Your task to perform on an android device: turn off data saver in the chrome app Image 0: 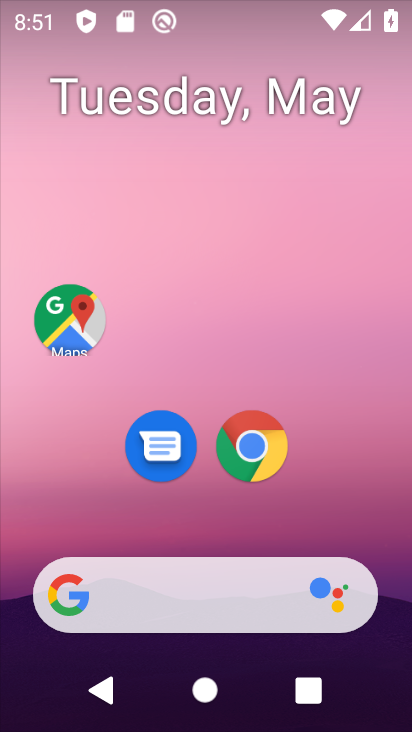
Step 0: drag from (398, 545) to (396, 220)
Your task to perform on an android device: turn off data saver in the chrome app Image 1: 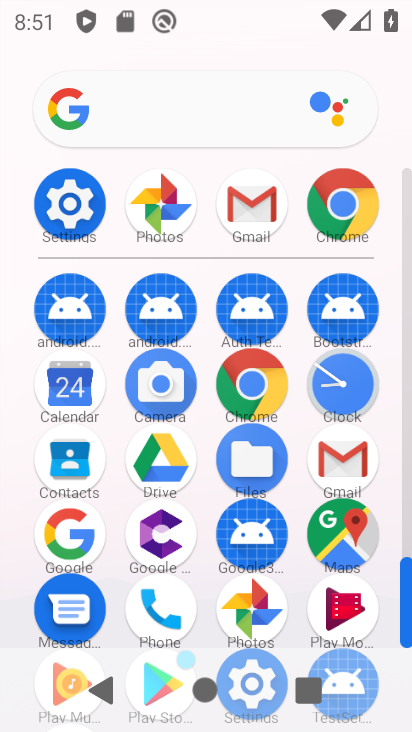
Step 1: click (273, 387)
Your task to perform on an android device: turn off data saver in the chrome app Image 2: 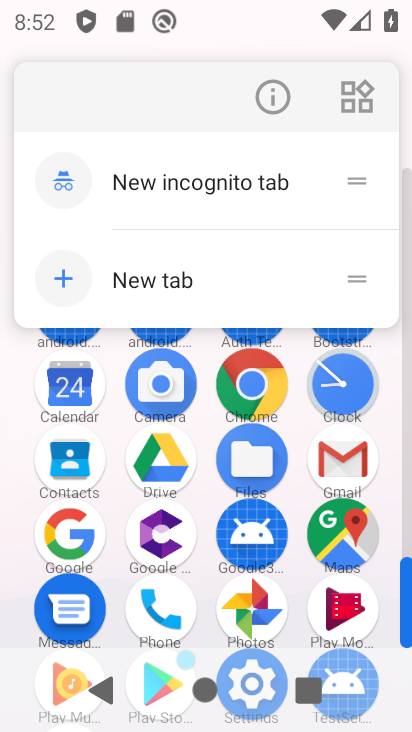
Step 2: click (269, 394)
Your task to perform on an android device: turn off data saver in the chrome app Image 3: 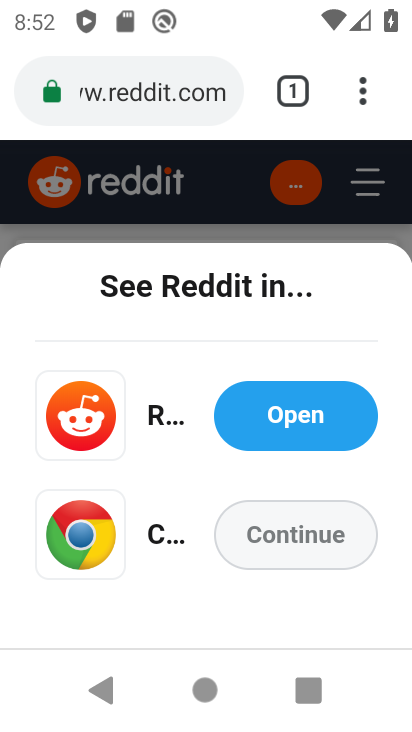
Step 3: click (363, 100)
Your task to perform on an android device: turn off data saver in the chrome app Image 4: 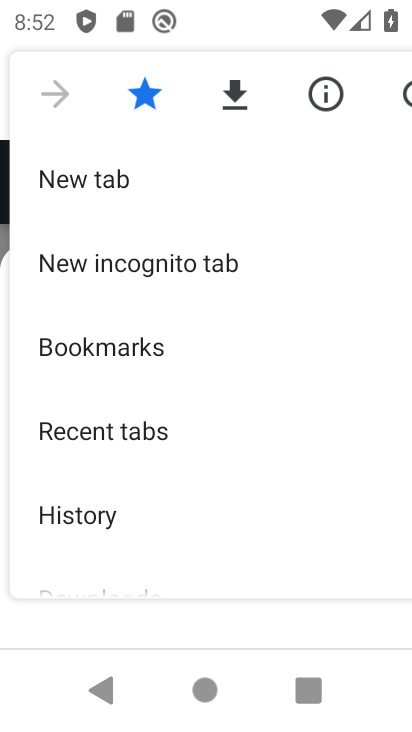
Step 4: drag from (347, 519) to (348, 406)
Your task to perform on an android device: turn off data saver in the chrome app Image 5: 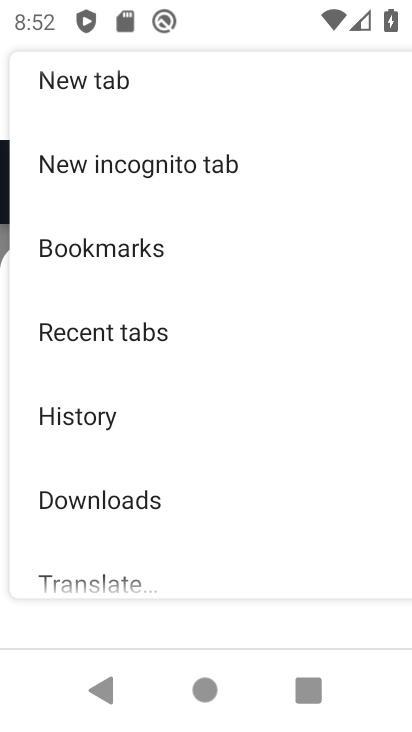
Step 5: drag from (376, 542) to (366, 414)
Your task to perform on an android device: turn off data saver in the chrome app Image 6: 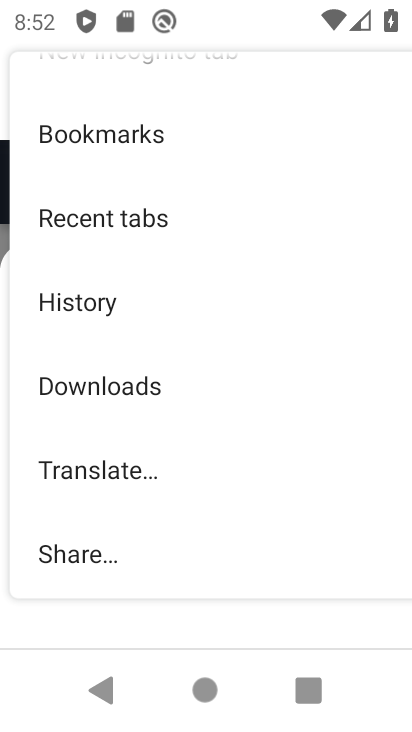
Step 6: drag from (332, 577) to (341, 436)
Your task to perform on an android device: turn off data saver in the chrome app Image 7: 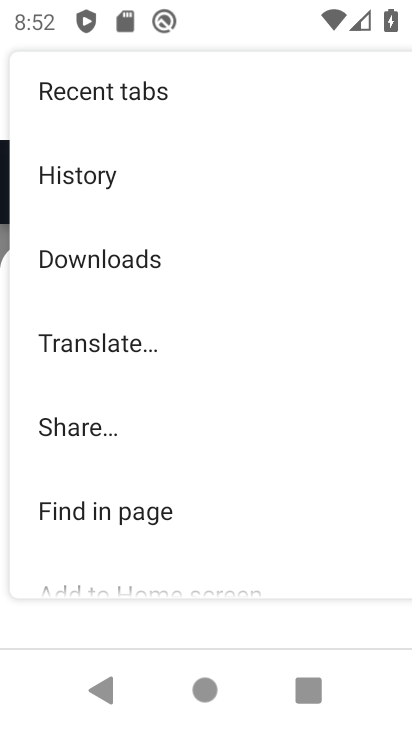
Step 7: drag from (338, 523) to (337, 429)
Your task to perform on an android device: turn off data saver in the chrome app Image 8: 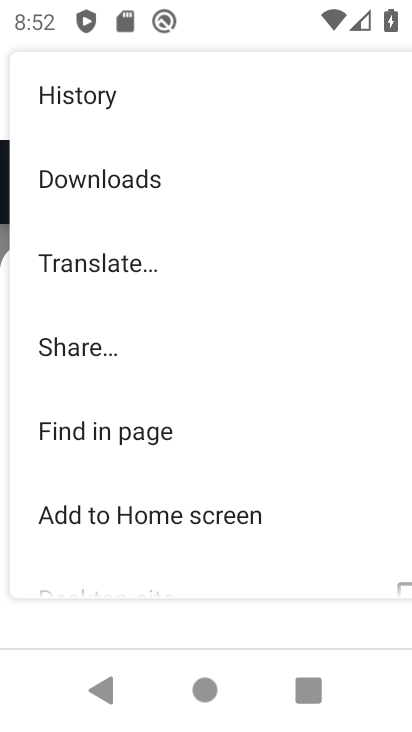
Step 8: drag from (320, 505) to (325, 371)
Your task to perform on an android device: turn off data saver in the chrome app Image 9: 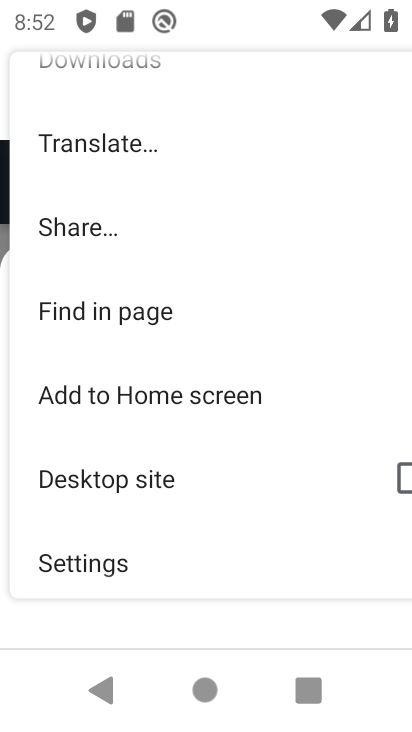
Step 9: drag from (319, 539) to (316, 441)
Your task to perform on an android device: turn off data saver in the chrome app Image 10: 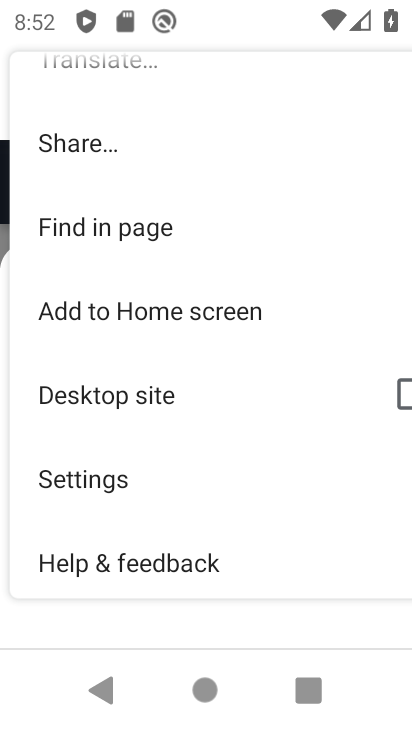
Step 10: drag from (320, 499) to (316, 419)
Your task to perform on an android device: turn off data saver in the chrome app Image 11: 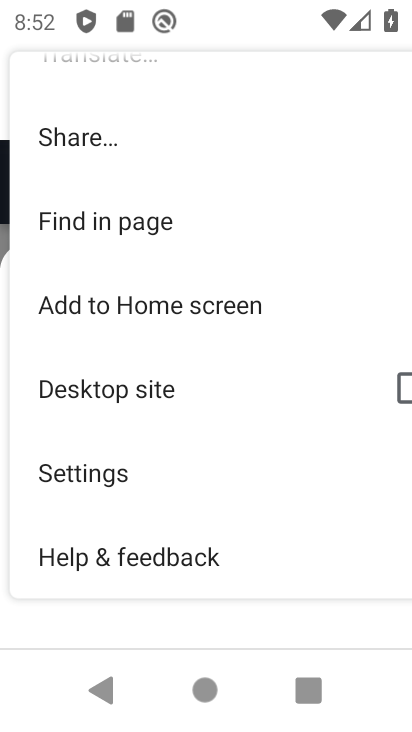
Step 11: click (126, 487)
Your task to perform on an android device: turn off data saver in the chrome app Image 12: 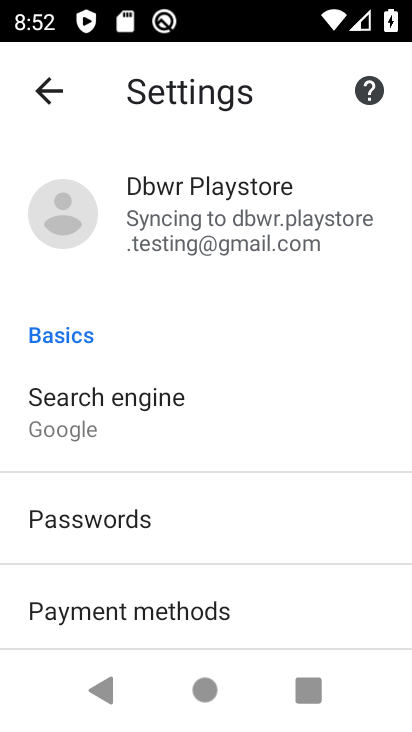
Step 12: drag from (294, 555) to (298, 452)
Your task to perform on an android device: turn off data saver in the chrome app Image 13: 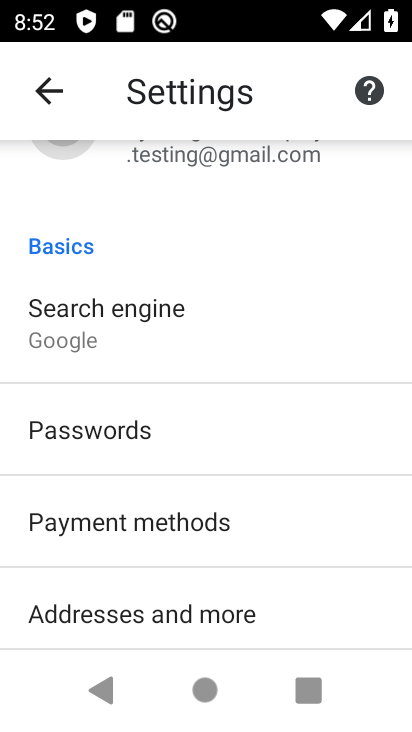
Step 13: drag from (334, 580) to (341, 474)
Your task to perform on an android device: turn off data saver in the chrome app Image 14: 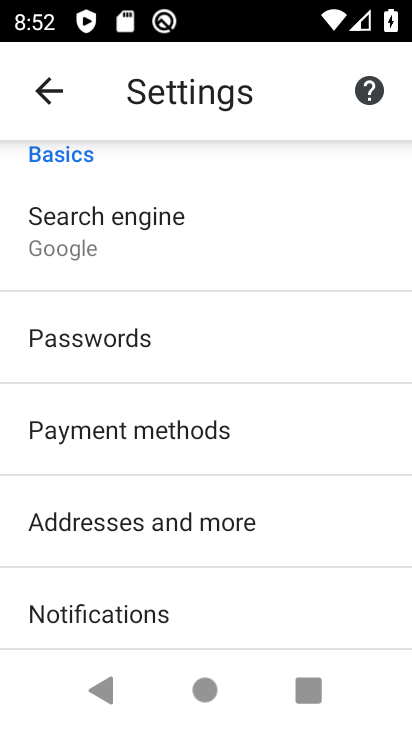
Step 14: drag from (333, 541) to (329, 410)
Your task to perform on an android device: turn off data saver in the chrome app Image 15: 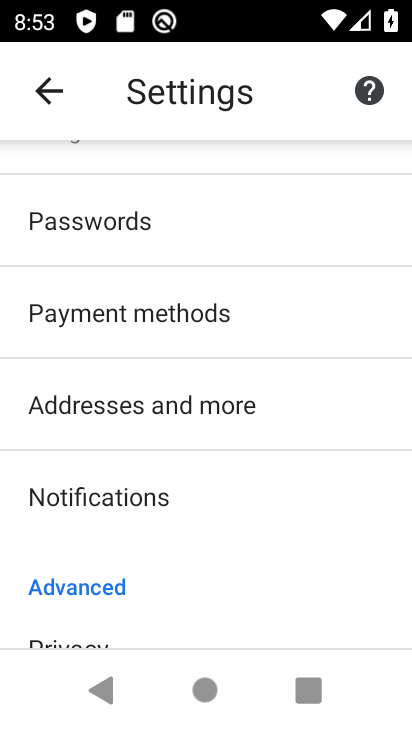
Step 15: drag from (337, 525) to (328, 441)
Your task to perform on an android device: turn off data saver in the chrome app Image 16: 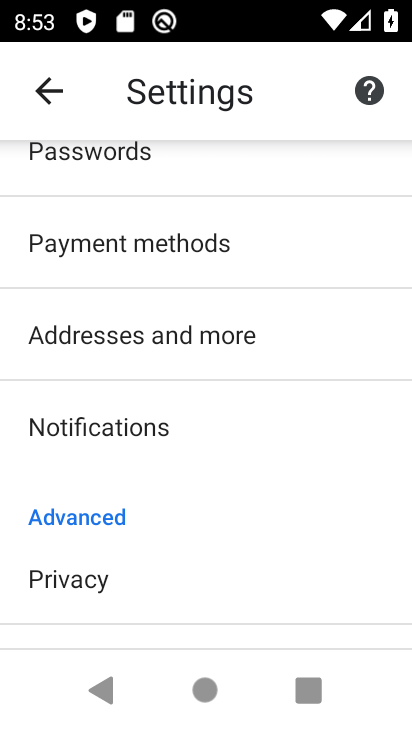
Step 16: drag from (347, 590) to (341, 498)
Your task to perform on an android device: turn off data saver in the chrome app Image 17: 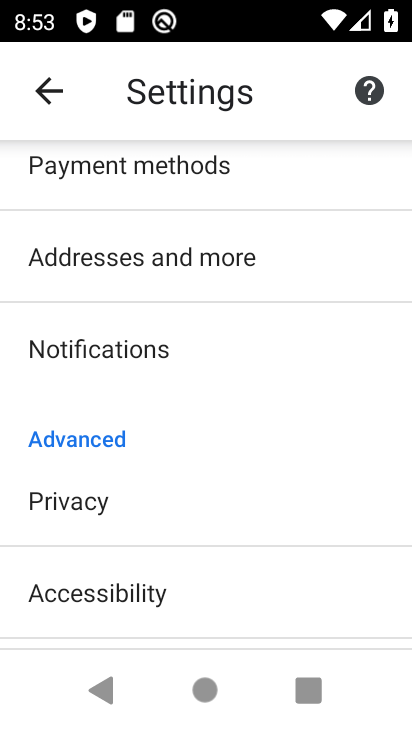
Step 17: drag from (322, 577) to (313, 453)
Your task to perform on an android device: turn off data saver in the chrome app Image 18: 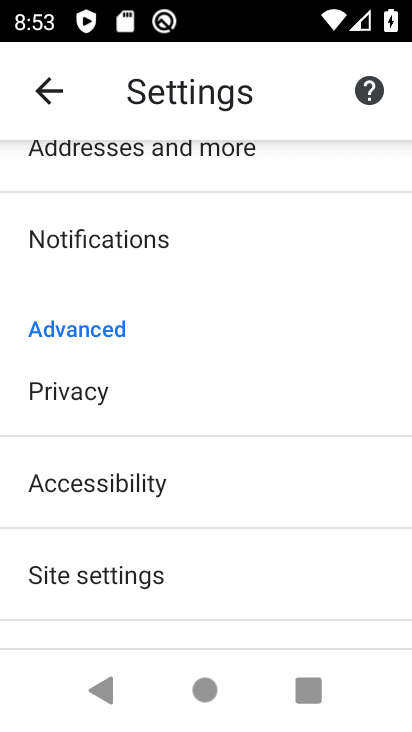
Step 18: drag from (302, 558) to (289, 458)
Your task to perform on an android device: turn off data saver in the chrome app Image 19: 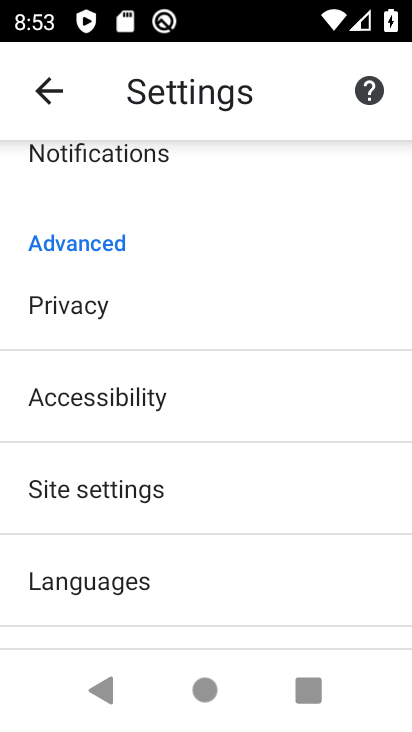
Step 19: drag from (263, 571) to (262, 433)
Your task to perform on an android device: turn off data saver in the chrome app Image 20: 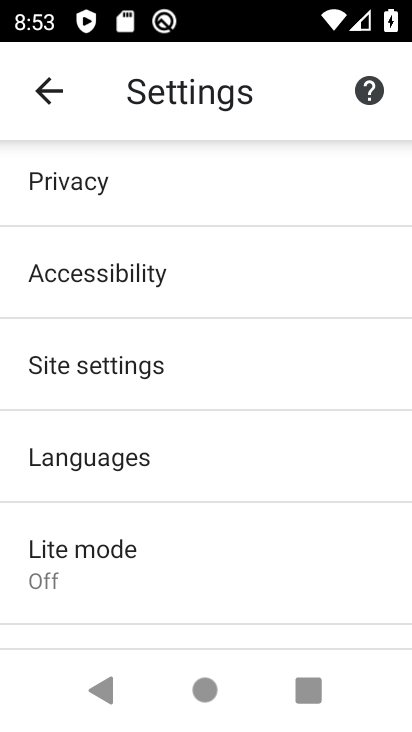
Step 20: click (263, 559)
Your task to perform on an android device: turn off data saver in the chrome app Image 21: 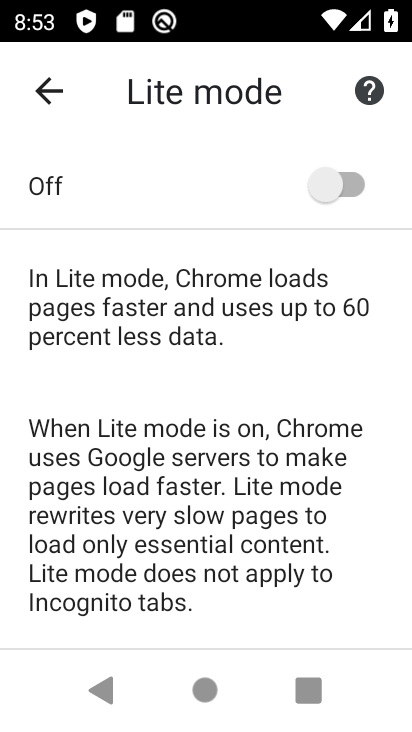
Step 21: task complete